Your task to perform on an android device: Go to accessibility settings Image 0: 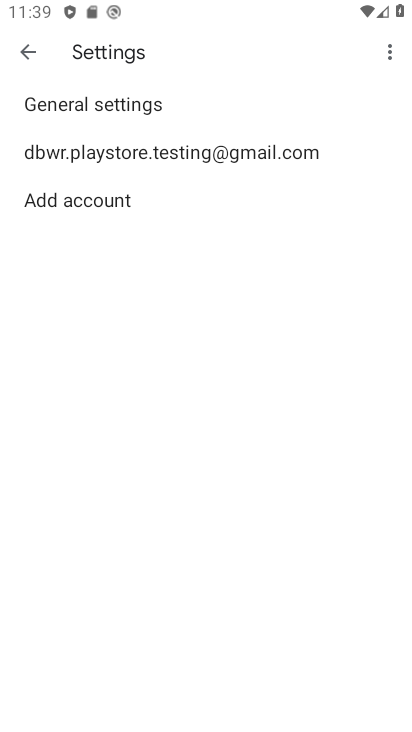
Step 0: press home button
Your task to perform on an android device: Go to accessibility settings Image 1: 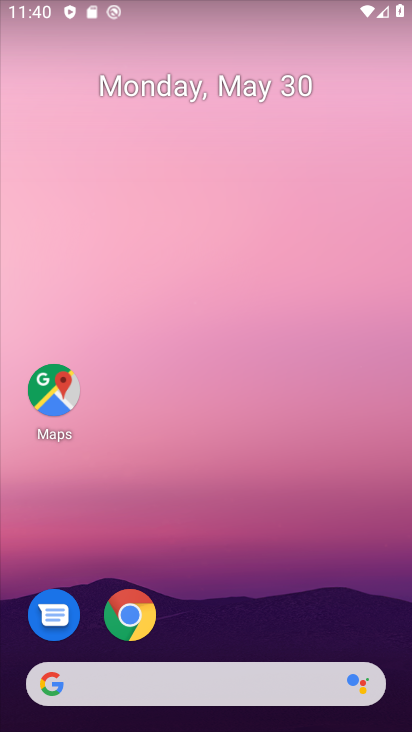
Step 1: drag from (366, 612) to (356, 143)
Your task to perform on an android device: Go to accessibility settings Image 2: 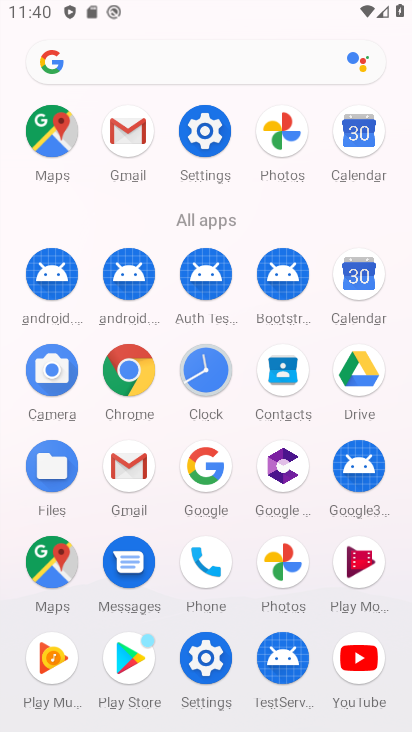
Step 2: click (208, 139)
Your task to perform on an android device: Go to accessibility settings Image 3: 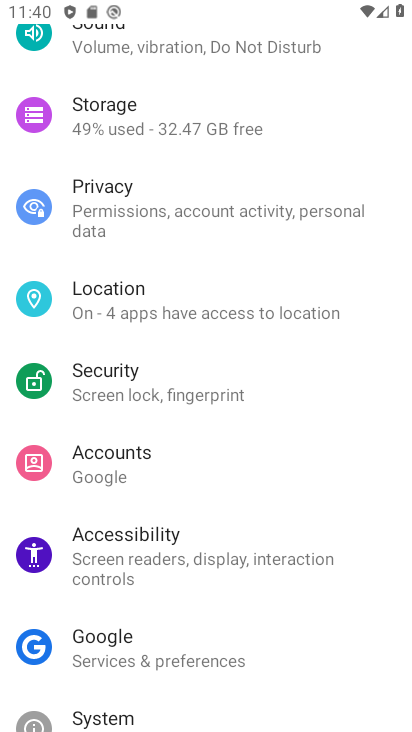
Step 3: drag from (364, 148) to (368, 299)
Your task to perform on an android device: Go to accessibility settings Image 4: 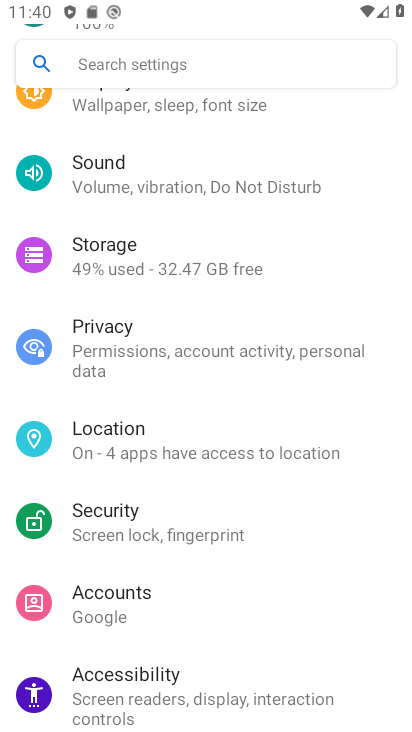
Step 4: drag from (373, 142) to (363, 296)
Your task to perform on an android device: Go to accessibility settings Image 5: 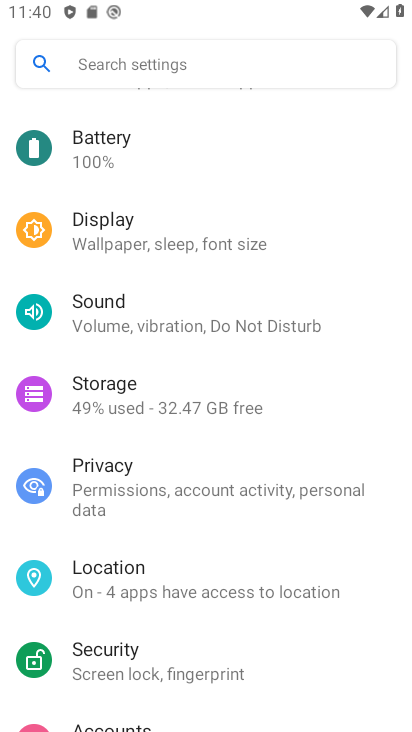
Step 5: drag from (345, 123) to (347, 278)
Your task to perform on an android device: Go to accessibility settings Image 6: 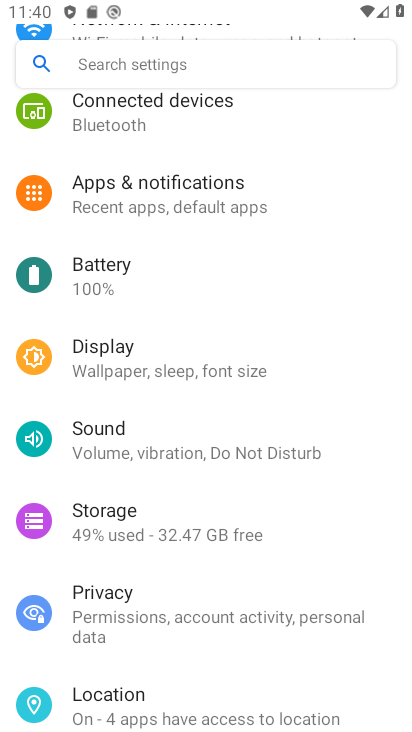
Step 6: drag from (349, 126) to (348, 282)
Your task to perform on an android device: Go to accessibility settings Image 7: 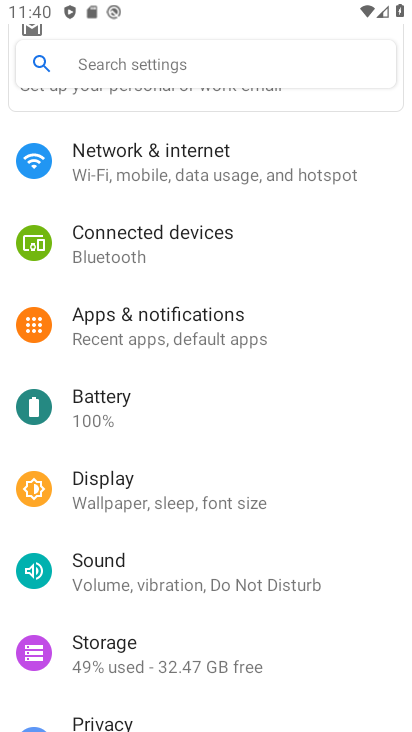
Step 7: drag from (350, 132) to (356, 355)
Your task to perform on an android device: Go to accessibility settings Image 8: 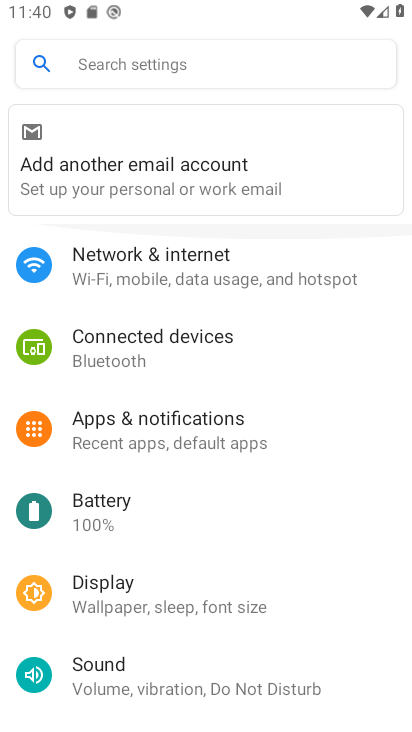
Step 8: drag from (351, 391) to (361, 258)
Your task to perform on an android device: Go to accessibility settings Image 9: 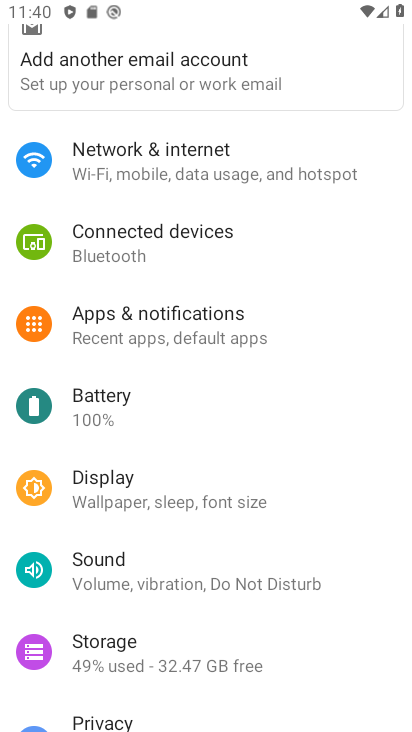
Step 9: drag from (359, 380) to (362, 274)
Your task to perform on an android device: Go to accessibility settings Image 10: 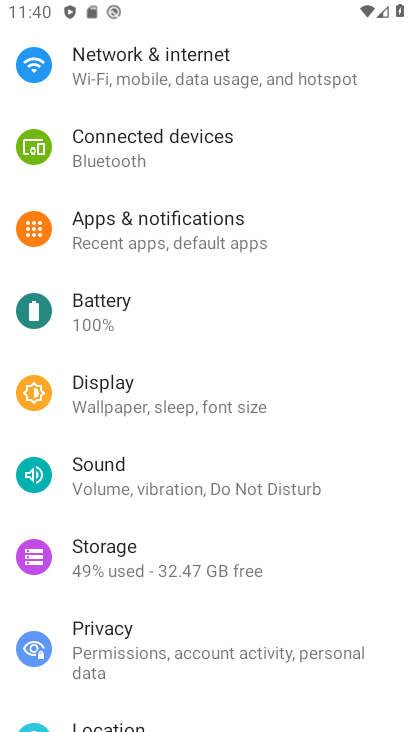
Step 10: drag from (368, 368) to (361, 255)
Your task to perform on an android device: Go to accessibility settings Image 11: 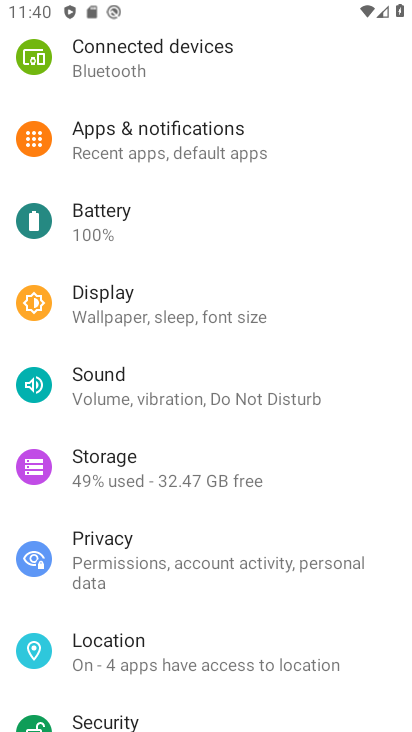
Step 11: drag from (358, 467) to (332, 303)
Your task to perform on an android device: Go to accessibility settings Image 12: 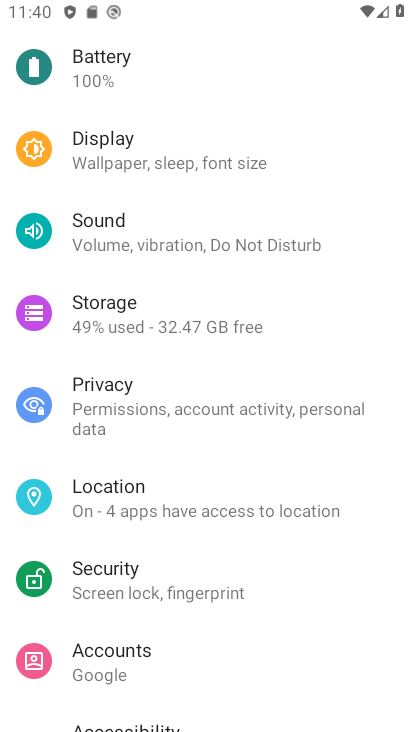
Step 12: drag from (316, 631) to (321, 495)
Your task to perform on an android device: Go to accessibility settings Image 13: 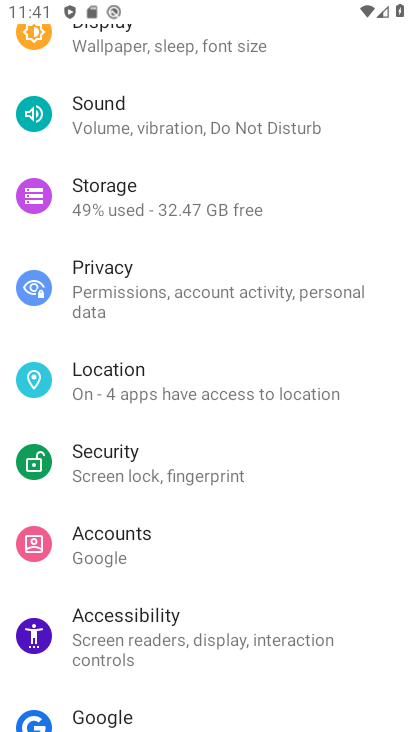
Step 13: click (163, 622)
Your task to perform on an android device: Go to accessibility settings Image 14: 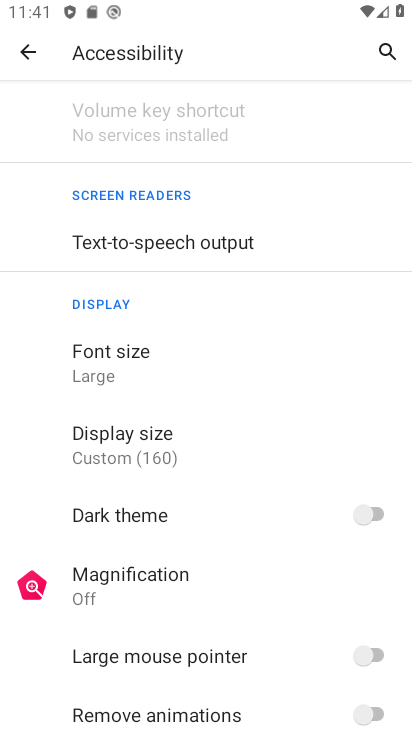
Step 14: task complete